Your task to perform on an android device: make emails show in primary in the gmail app Image 0: 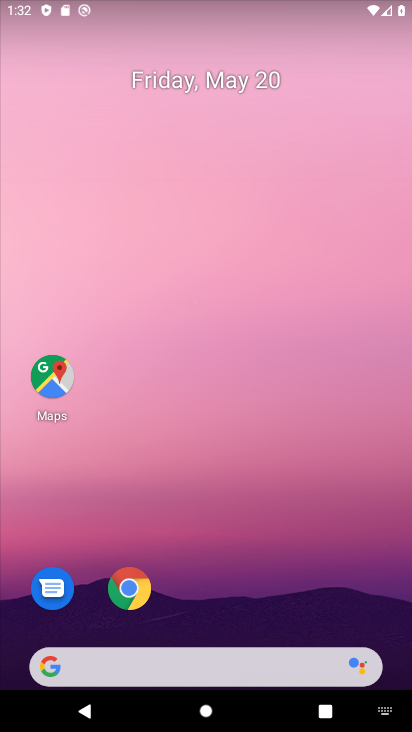
Step 0: drag from (183, 656) to (157, 59)
Your task to perform on an android device: make emails show in primary in the gmail app Image 1: 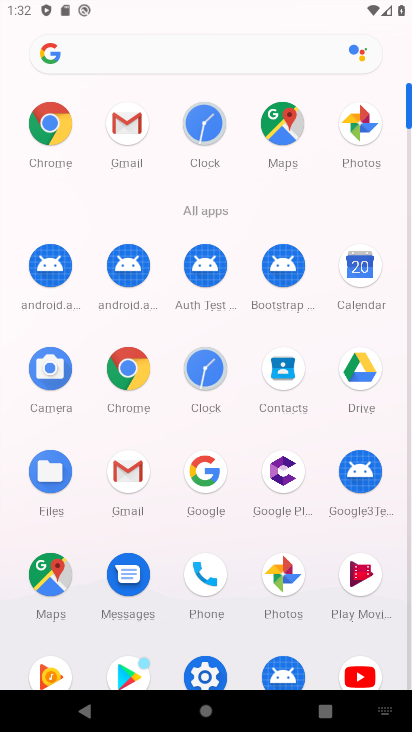
Step 1: click (134, 483)
Your task to perform on an android device: make emails show in primary in the gmail app Image 2: 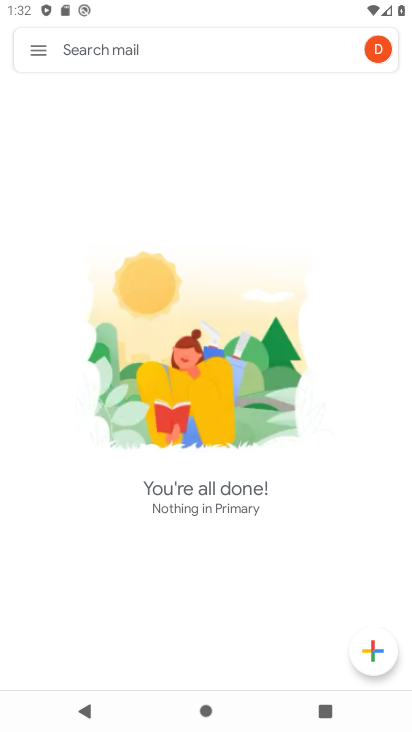
Step 2: click (36, 51)
Your task to perform on an android device: make emails show in primary in the gmail app Image 3: 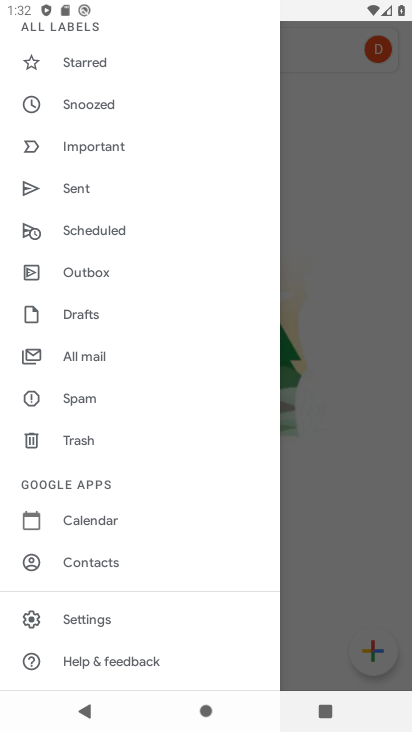
Step 3: click (85, 613)
Your task to perform on an android device: make emails show in primary in the gmail app Image 4: 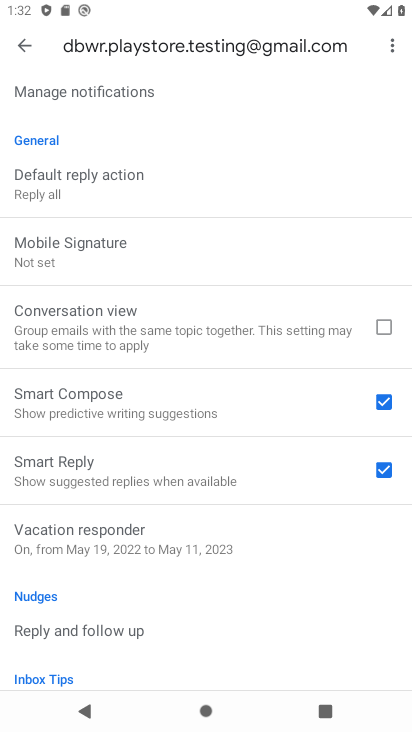
Step 4: drag from (90, 207) to (111, 705)
Your task to perform on an android device: make emails show in primary in the gmail app Image 5: 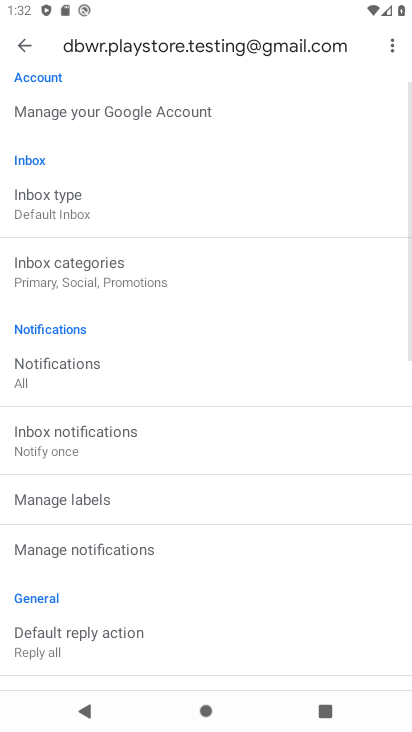
Step 5: click (103, 214)
Your task to perform on an android device: make emails show in primary in the gmail app Image 6: 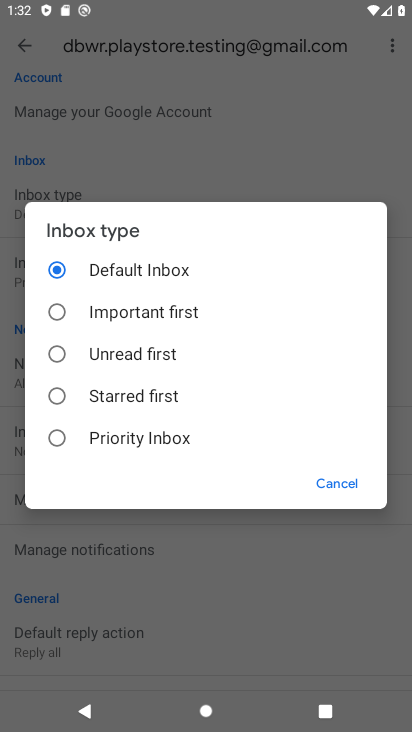
Step 6: click (104, 268)
Your task to perform on an android device: make emails show in primary in the gmail app Image 7: 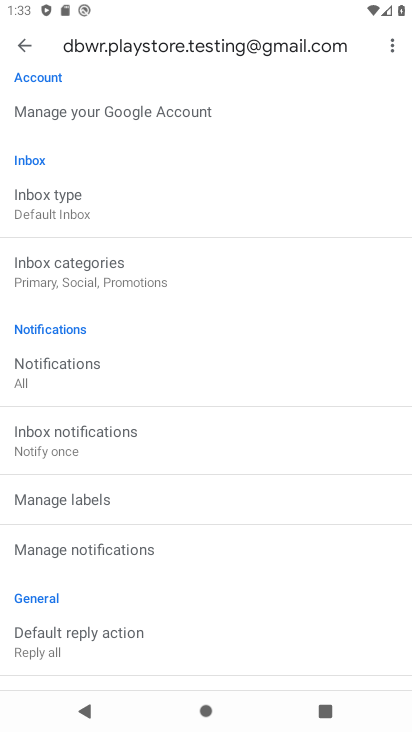
Step 7: click (127, 259)
Your task to perform on an android device: make emails show in primary in the gmail app Image 8: 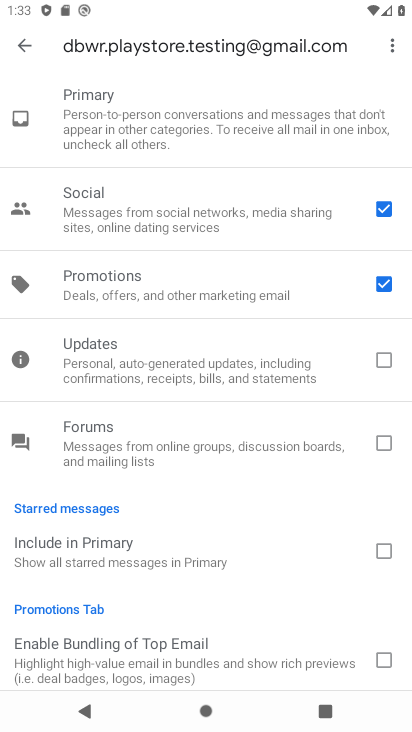
Step 8: click (375, 225)
Your task to perform on an android device: make emails show in primary in the gmail app Image 9: 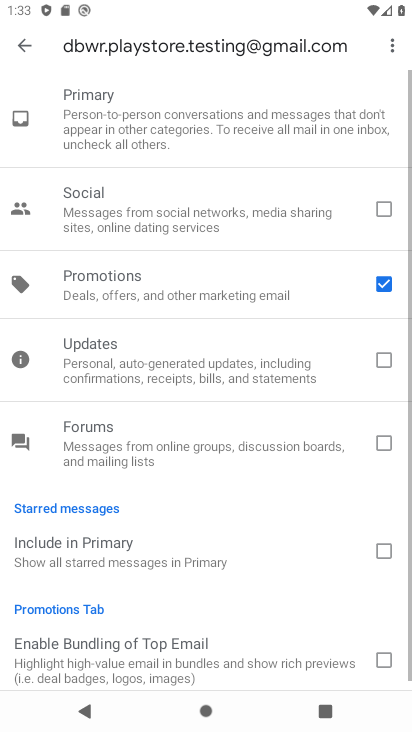
Step 9: click (381, 299)
Your task to perform on an android device: make emails show in primary in the gmail app Image 10: 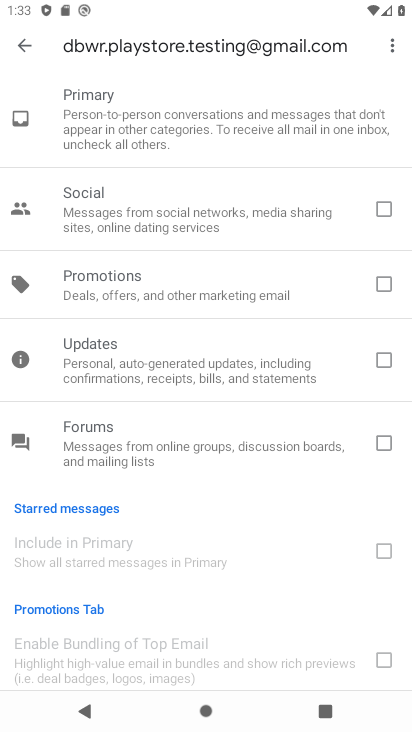
Step 10: task complete